Your task to perform on an android device: turn on the 12-hour format for clock Image 0: 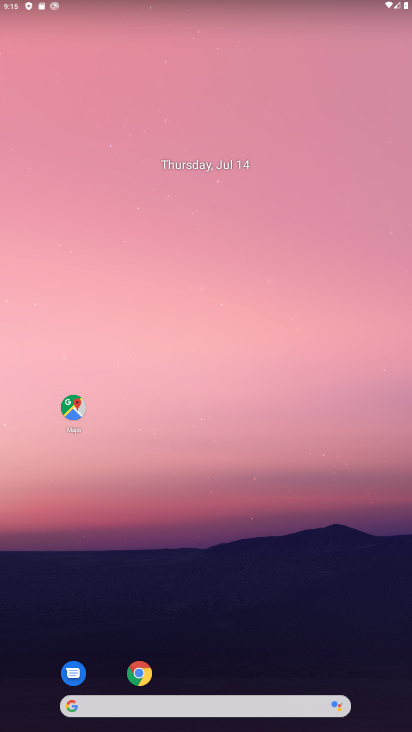
Step 0: drag from (208, 671) to (146, 6)
Your task to perform on an android device: turn on the 12-hour format for clock Image 1: 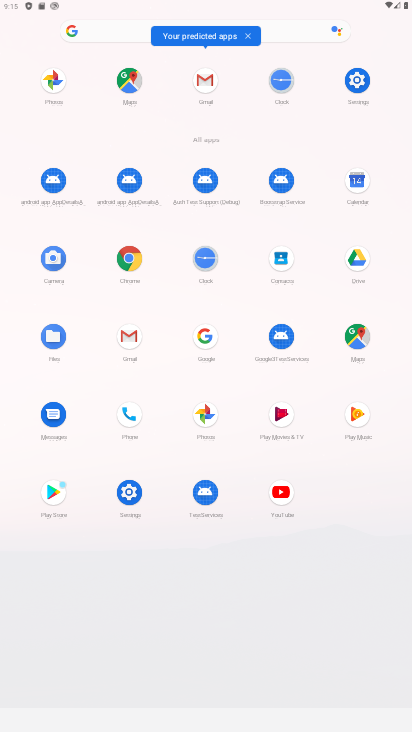
Step 1: click (124, 495)
Your task to perform on an android device: turn on the 12-hour format for clock Image 2: 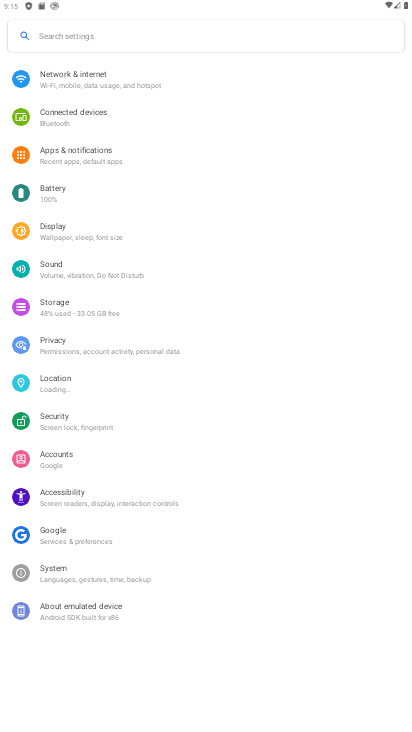
Step 2: click (25, 231)
Your task to perform on an android device: turn on the 12-hour format for clock Image 3: 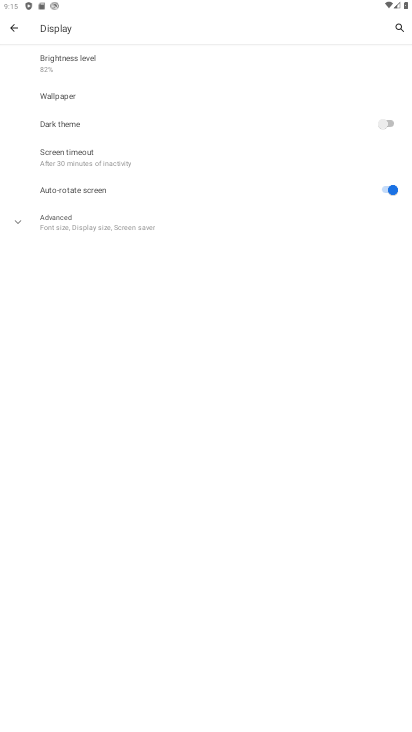
Step 3: click (52, 222)
Your task to perform on an android device: turn on the 12-hour format for clock Image 4: 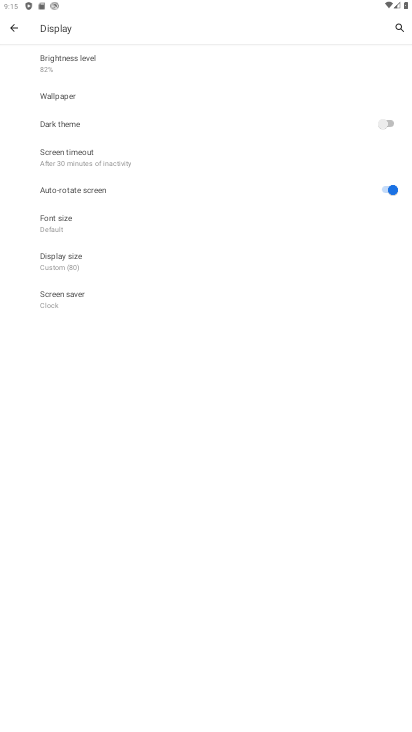
Step 4: click (70, 251)
Your task to perform on an android device: turn on the 12-hour format for clock Image 5: 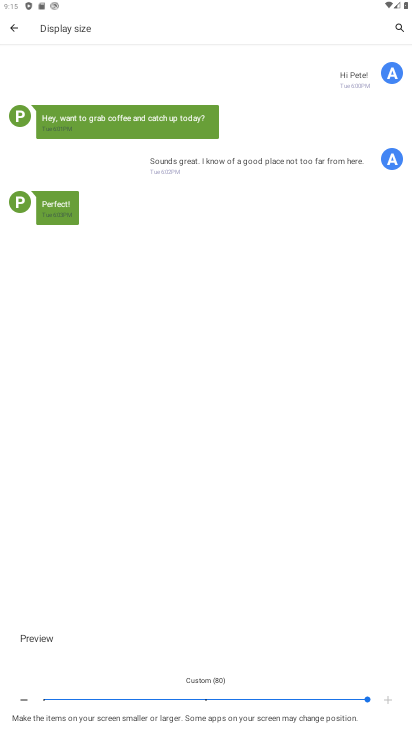
Step 5: click (207, 697)
Your task to perform on an android device: turn on the 12-hour format for clock Image 6: 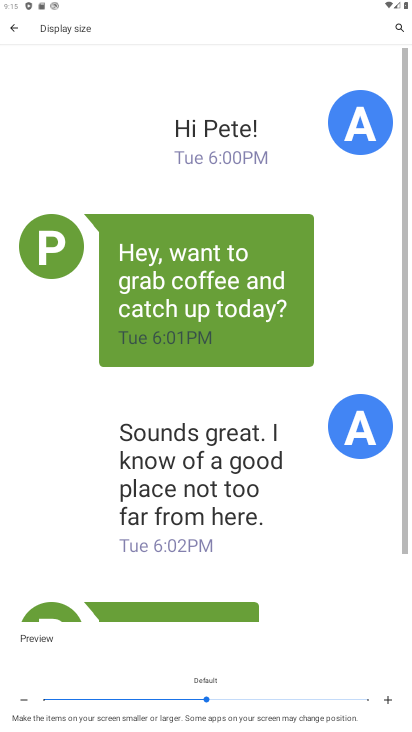
Step 6: click (41, 700)
Your task to perform on an android device: turn on the 12-hour format for clock Image 7: 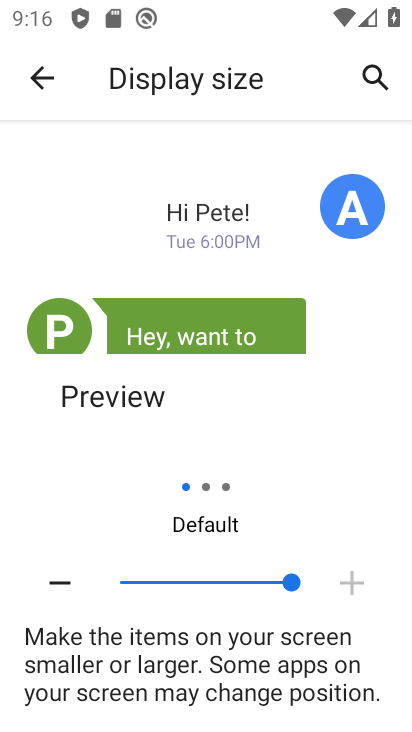
Step 7: click (208, 574)
Your task to perform on an android device: turn on the 12-hour format for clock Image 8: 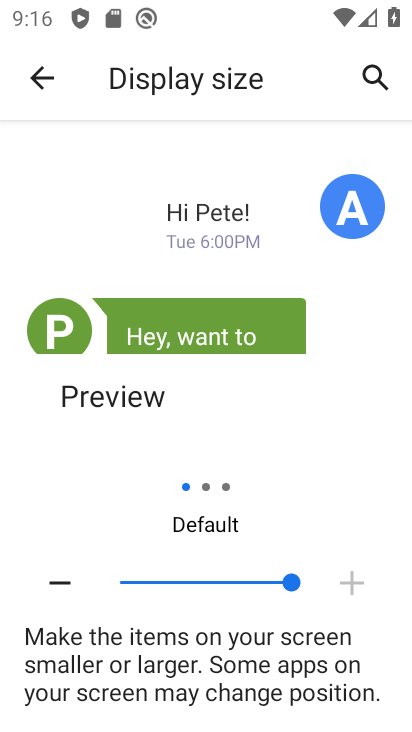
Step 8: click (126, 581)
Your task to perform on an android device: turn on the 12-hour format for clock Image 9: 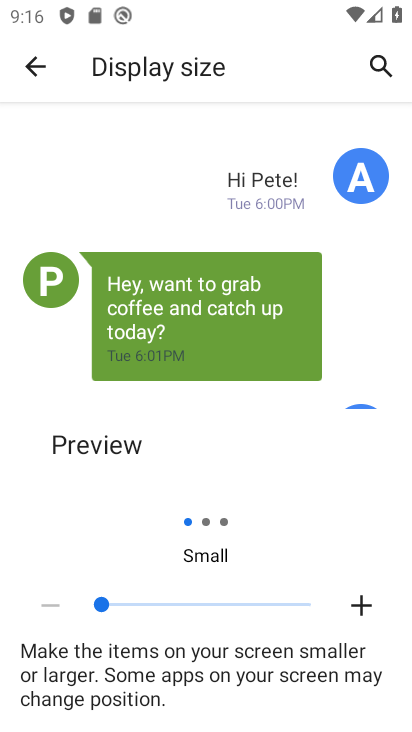
Step 9: task complete